Your task to perform on an android device: open sync settings in chrome Image 0: 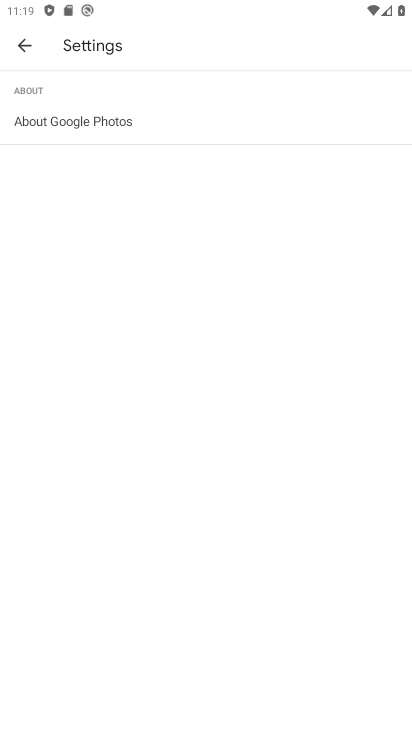
Step 0: click (25, 49)
Your task to perform on an android device: open sync settings in chrome Image 1: 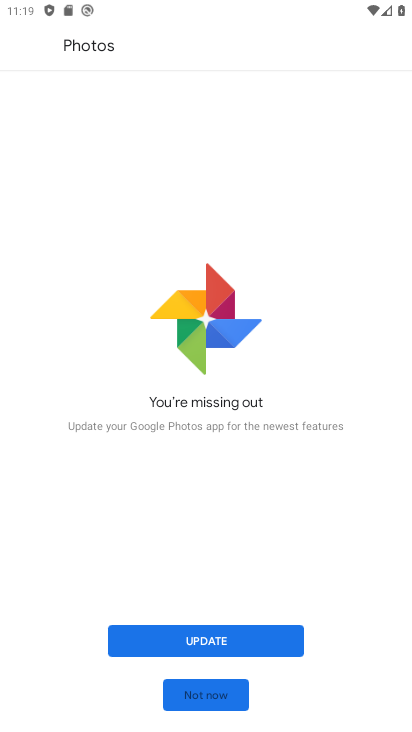
Step 1: click (215, 691)
Your task to perform on an android device: open sync settings in chrome Image 2: 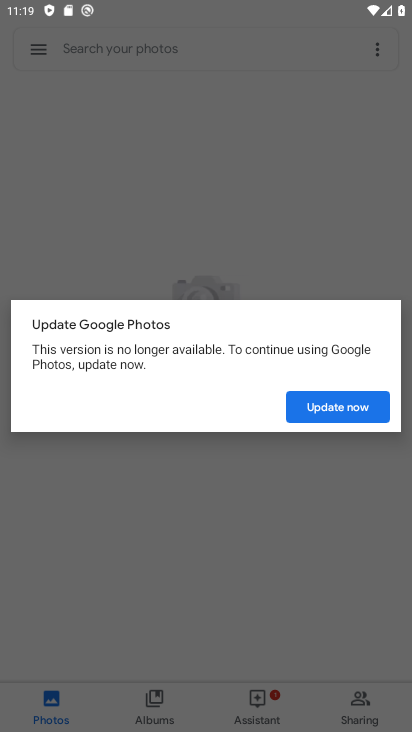
Step 2: press back button
Your task to perform on an android device: open sync settings in chrome Image 3: 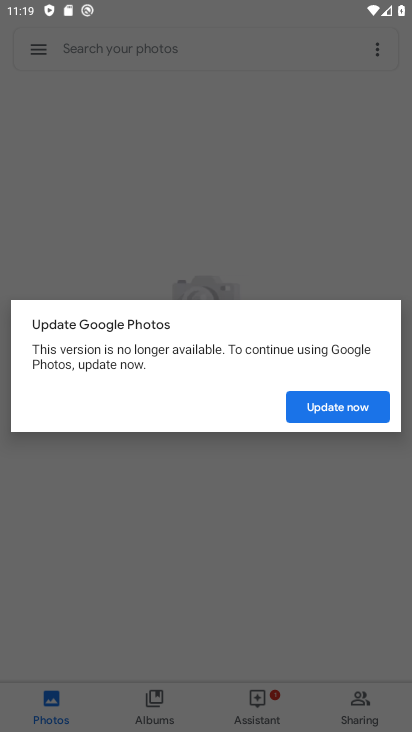
Step 3: press home button
Your task to perform on an android device: open sync settings in chrome Image 4: 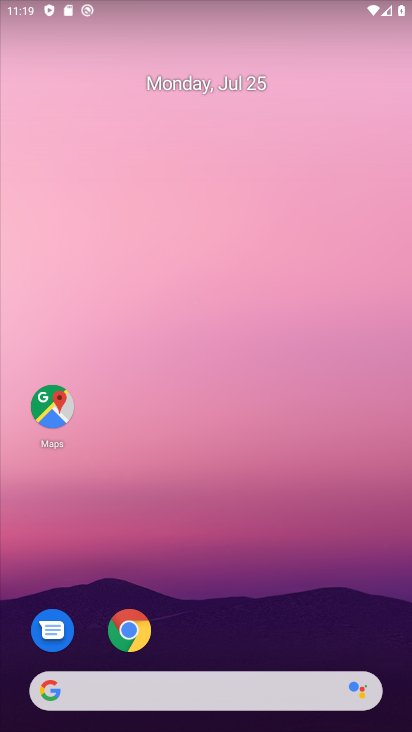
Step 4: drag from (244, 401) to (220, 146)
Your task to perform on an android device: open sync settings in chrome Image 5: 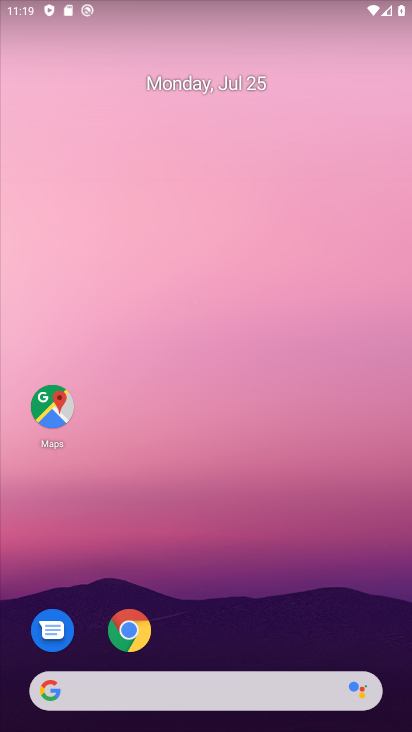
Step 5: drag from (272, 541) to (173, 153)
Your task to perform on an android device: open sync settings in chrome Image 6: 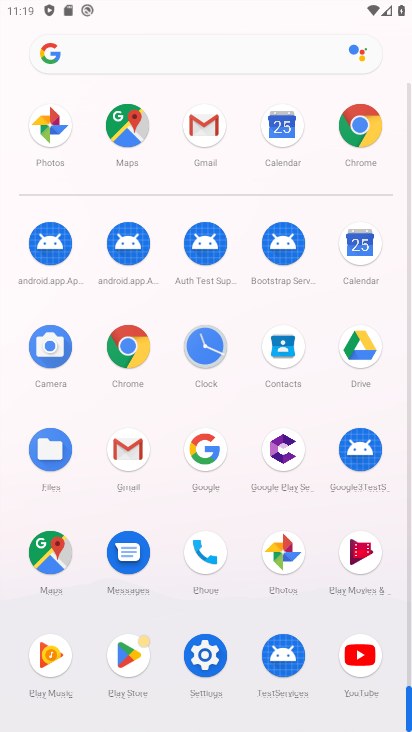
Step 6: click (376, 130)
Your task to perform on an android device: open sync settings in chrome Image 7: 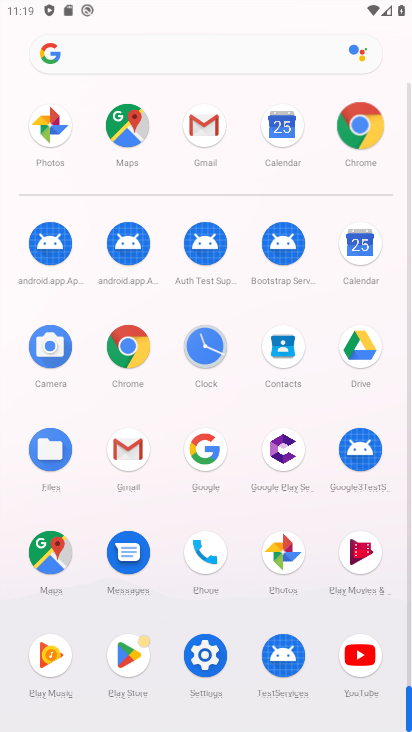
Step 7: click (373, 129)
Your task to perform on an android device: open sync settings in chrome Image 8: 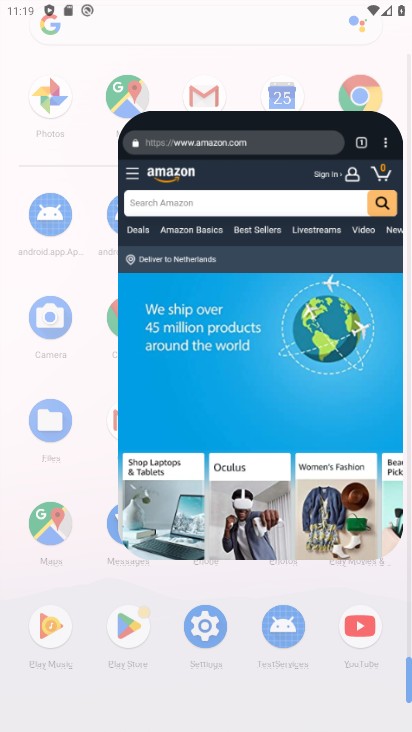
Step 8: click (372, 130)
Your task to perform on an android device: open sync settings in chrome Image 9: 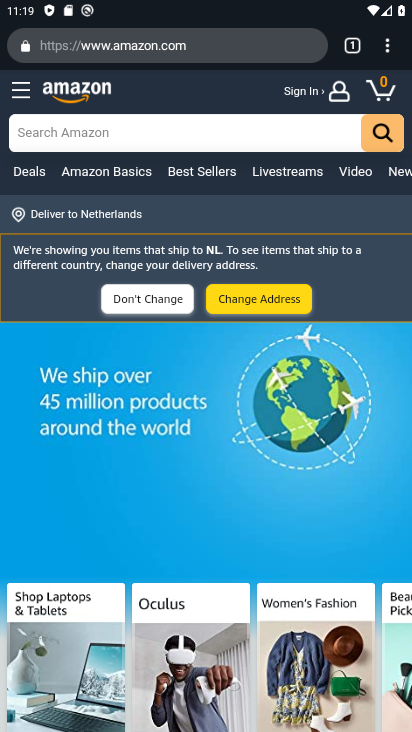
Step 9: click (386, 43)
Your task to perform on an android device: open sync settings in chrome Image 10: 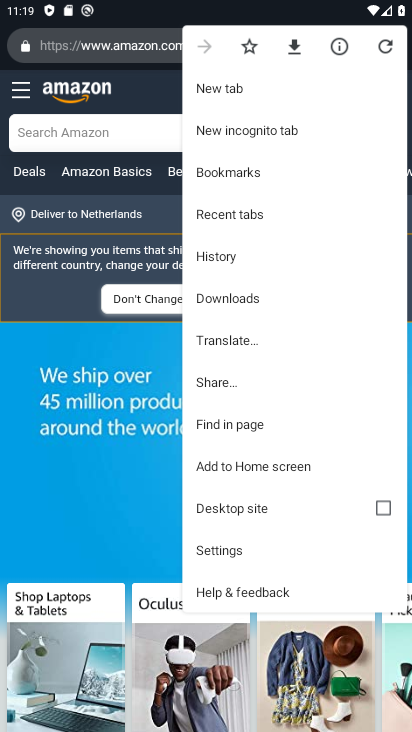
Step 10: click (214, 558)
Your task to perform on an android device: open sync settings in chrome Image 11: 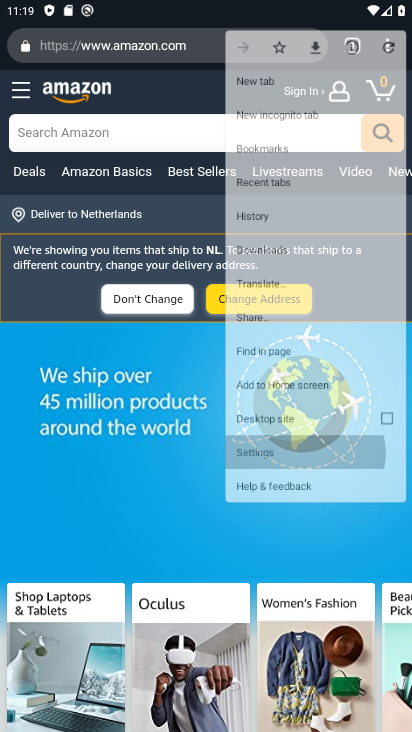
Step 11: click (215, 553)
Your task to perform on an android device: open sync settings in chrome Image 12: 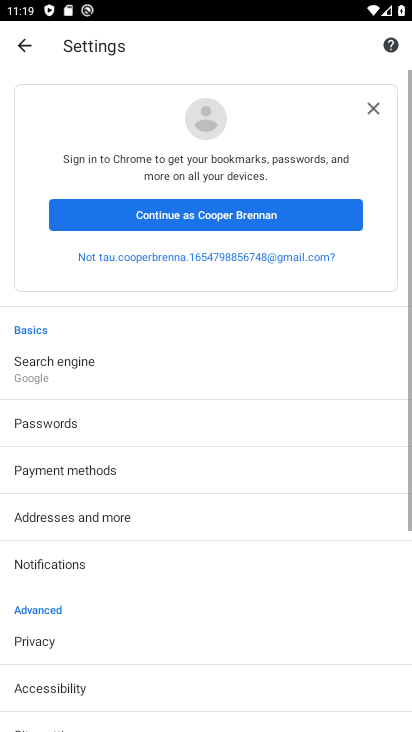
Step 12: drag from (180, 595) to (169, 160)
Your task to perform on an android device: open sync settings in chrome Image 13: 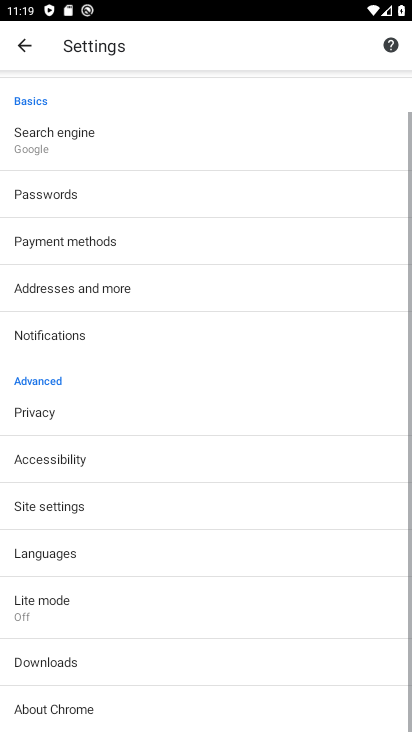
Step 13: drag from (165, 626) to (165, 134)
Your task to perform on an android device: open sync settings in chrome Image 14: 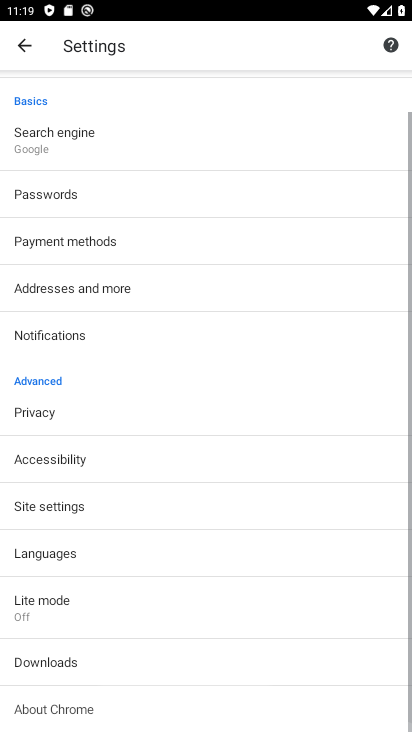
Step 14: drag from (190, 453) to (195, 156)
Your task to perform on an android device: open sync settings in chrome Image 15: 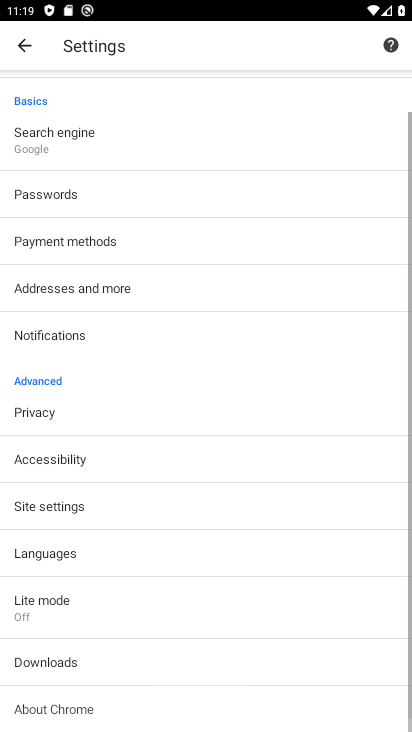
Step 15: drag from (199, 522) to (201, 348)
Your task to perform on an android device: open sync settings in chrome Image 16: 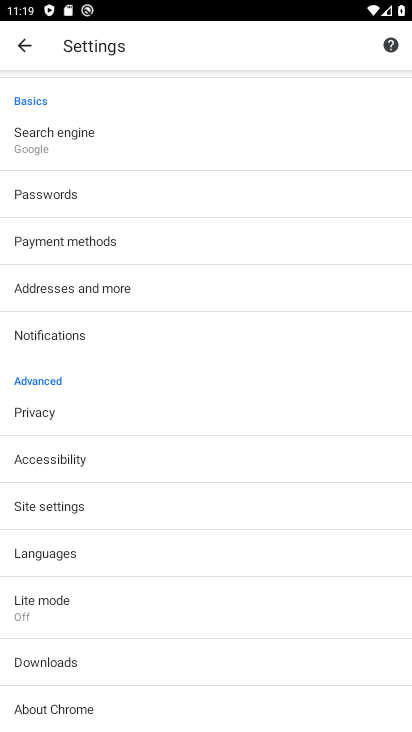
Step 16: click (45, 505)
Your task to perform on an android device: open sync settings in chrome Image 17: 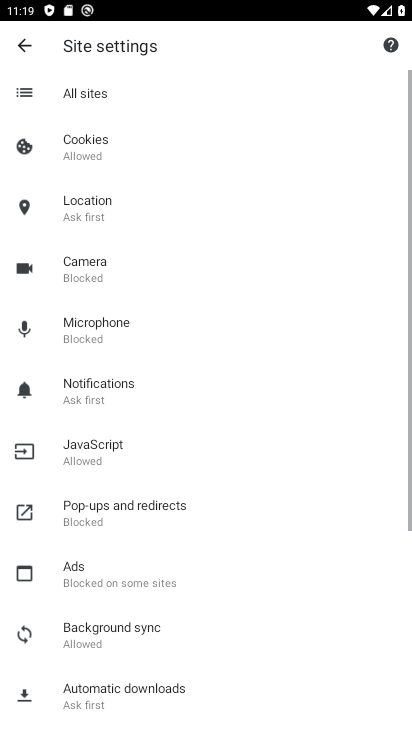
Step 17: click (45, 505)
Your task to perform on an android device: open sync settings in chrome Image 18: 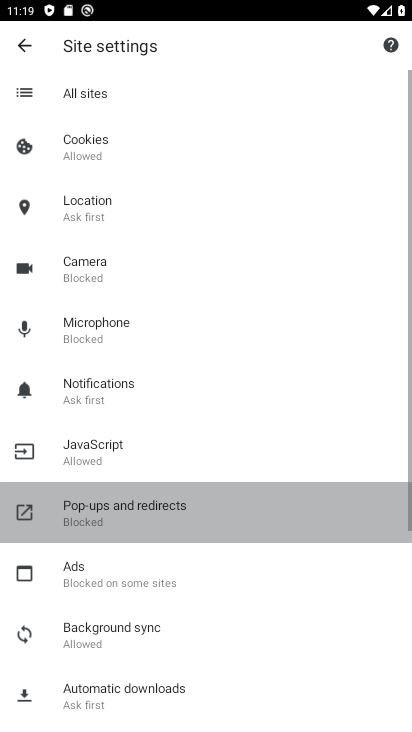
Step 18: click (46, 506)
Your task to perform on an android device: open sync settings in chrome Image 19: 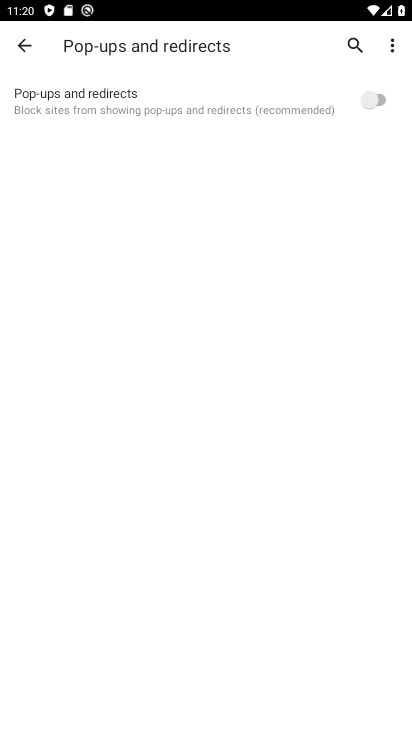
Step 19: click (18, 47)
Your task to perform on an android device: open sync settings in chrome Image 20: 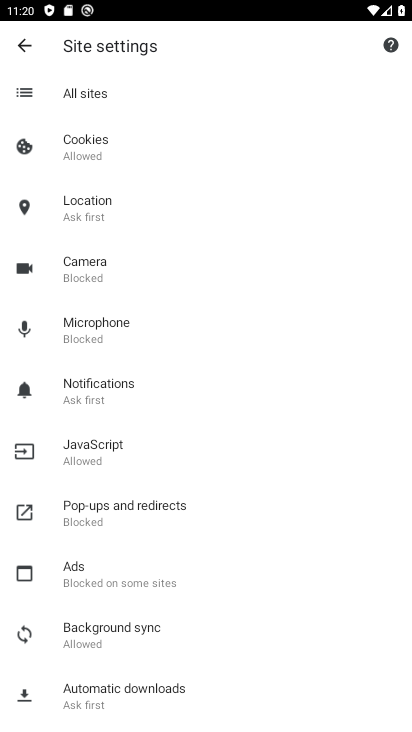
Step 20: click (93, 630)
Your task to perform on an android device: open sync settings in chrome Image 21: 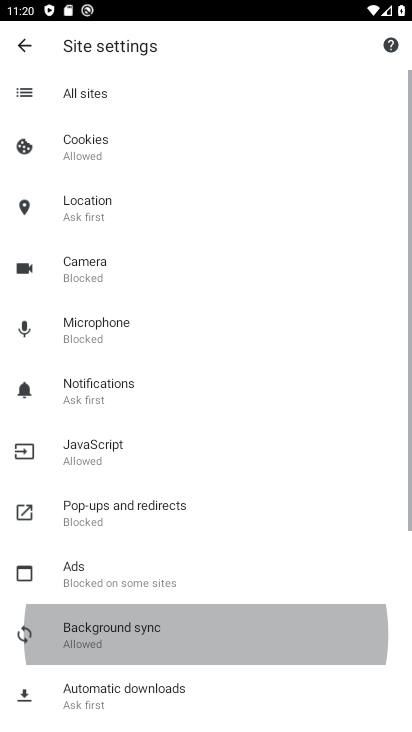
Step 21: click (94, 629)
Your task to perform on an android device: open sync settings in chrome Image 22: 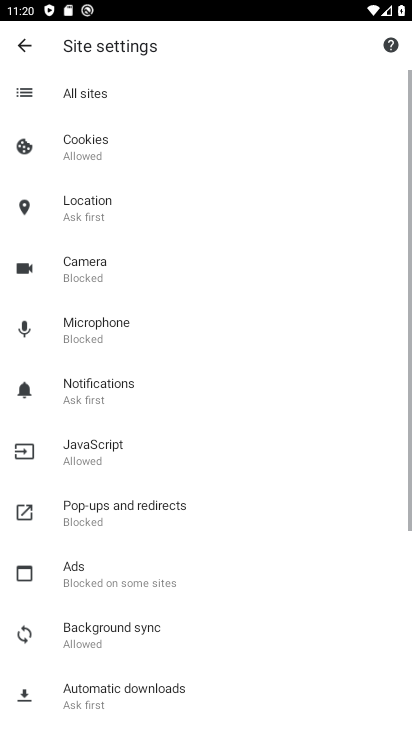
Step 22: click (97, 630)
Your task to perform on an android device: open sync settings in chrome Image 23: 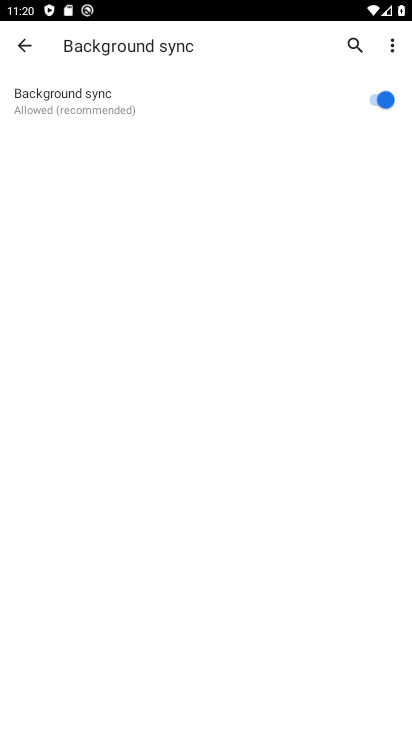
Step 23: task complete